Your task to perform on an android device: Go to Google Image 0: 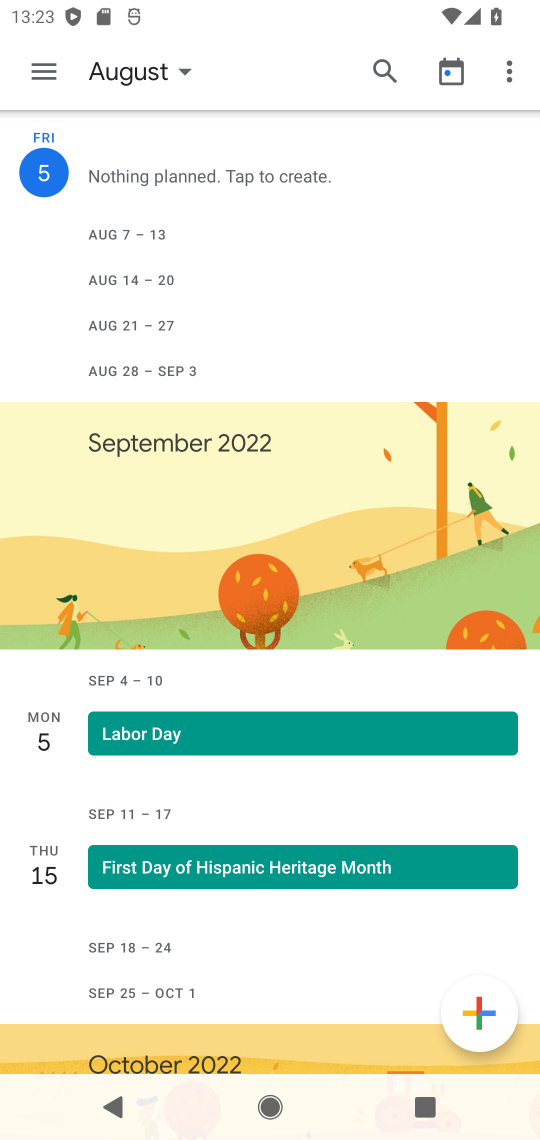
Step 0: press home button
Your task to perform on an android device: Go to Google Image 1: 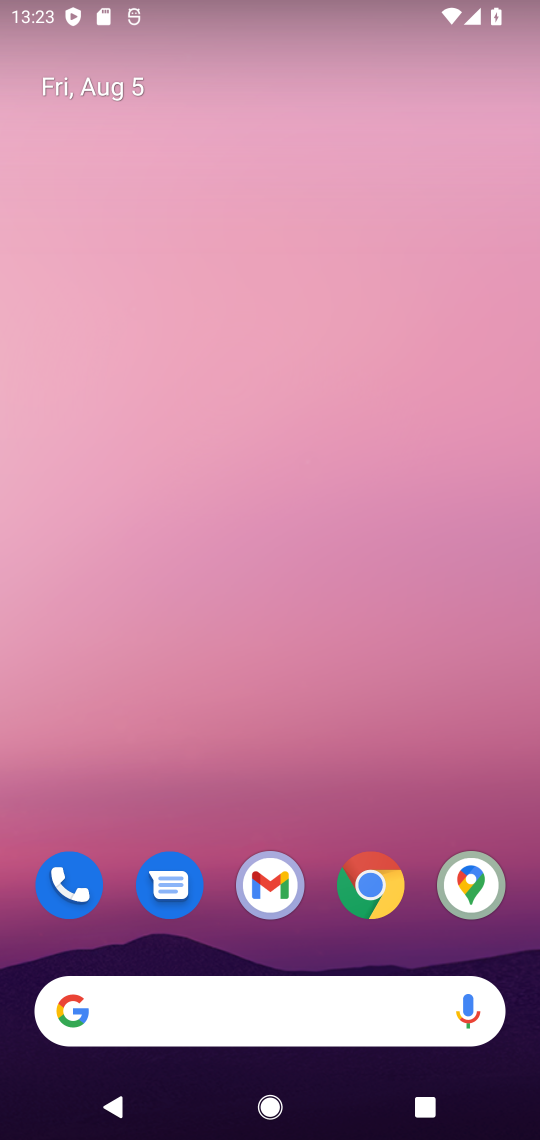
Step 1: click (222, 1019)
Your task to perform on an android device: Go to Google Image 2: 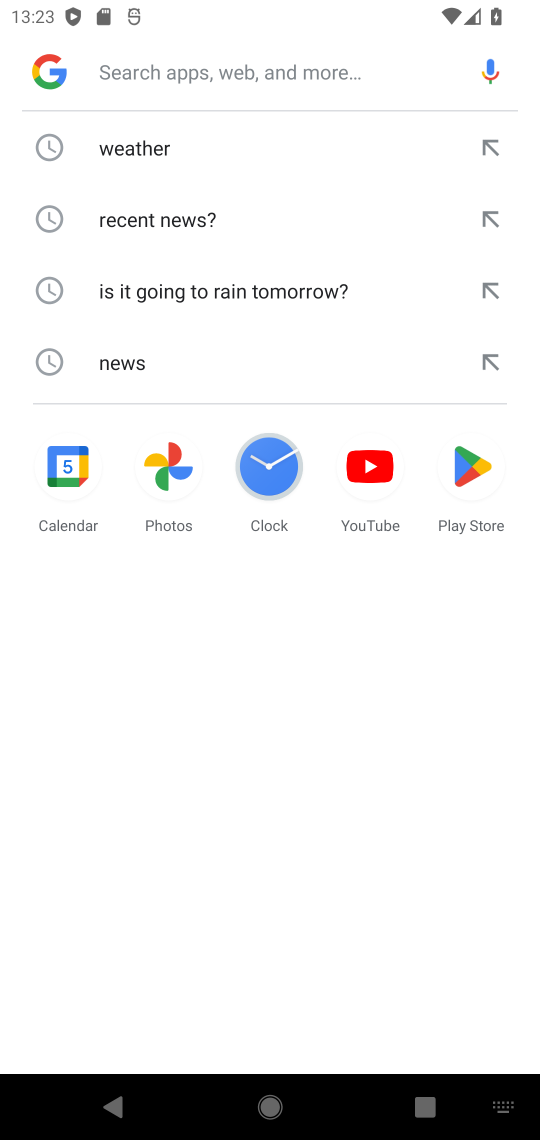
Step 2: task complete